Your task to perform on an android device: Search for vegetarian restaurants on Maps Image 0: 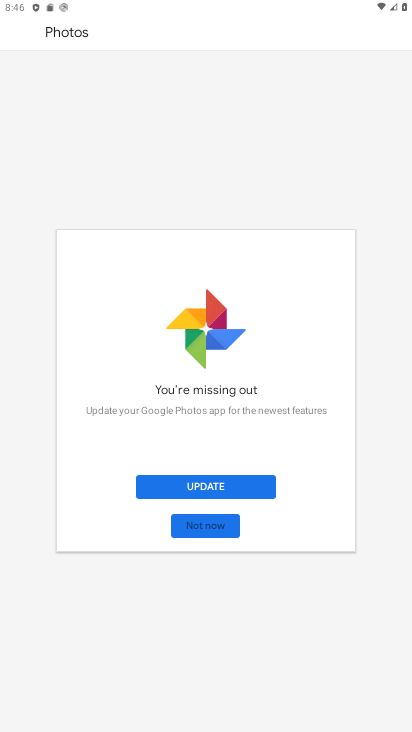
Step 0: press home button
Your task to perform on an android device: Search for vegetarian restaurants on Maps Image 1: 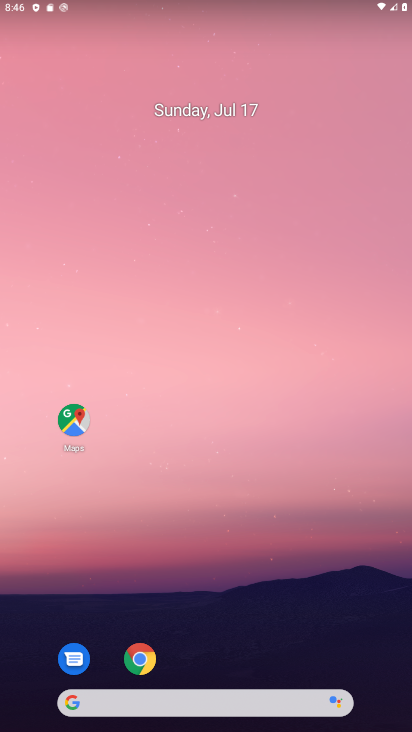
Step 1: click (72, 422)
Your task to perform on an android device: Search for vegetarian restaurants on Maps Image 2: 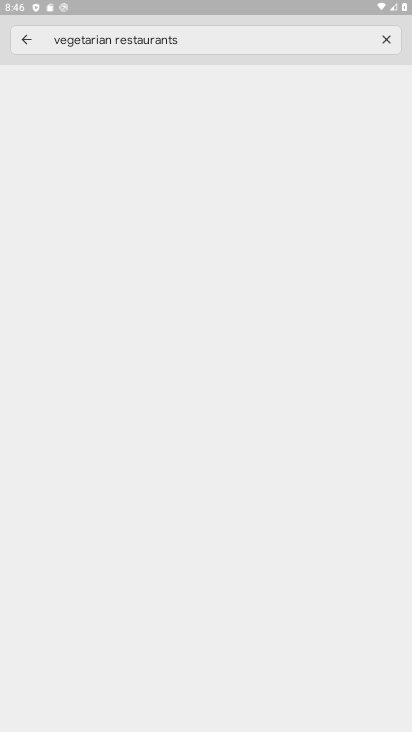
Step 2: click (390, 38)
Your task to perform on an android device: Search for vegetarian restaurants on Maps Image 3: 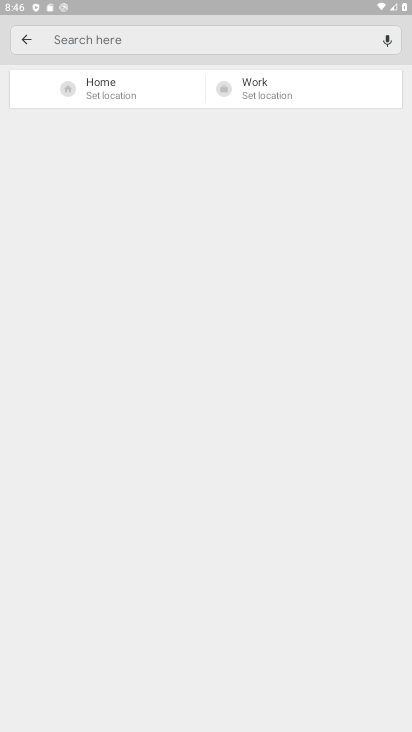
Step 3: click (93, 84)
Your task to perform on an android device: Search for vegetarian restaurants on Maps Image 4: 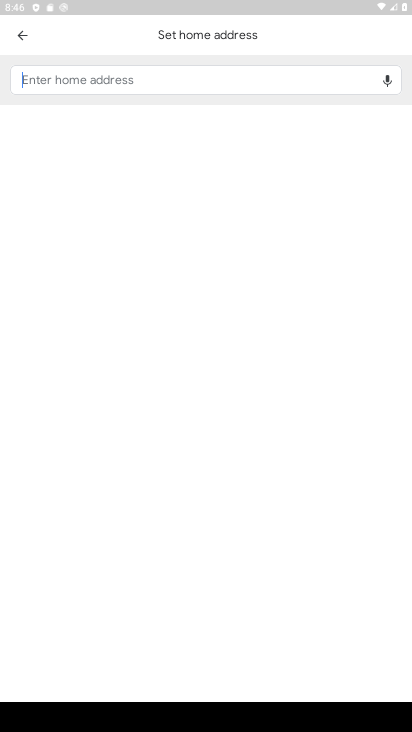
Step 4: click (16, 36)
Your task to perform on an android device: Search for vegetarian restaurants on Maps Image 5: 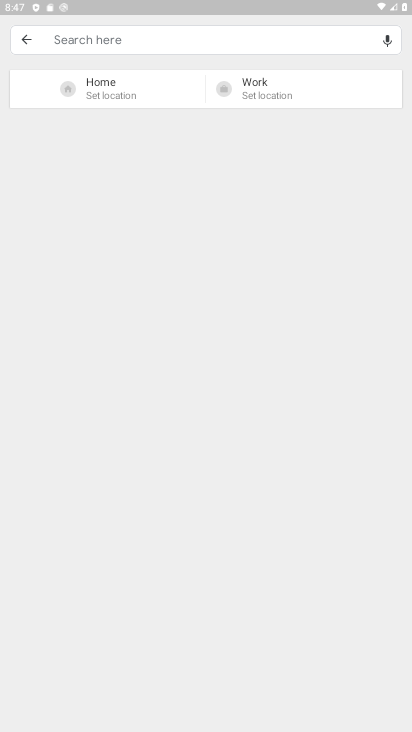
Step 5: type "v"
Your task to perform on an android device: Search for vegetarian restaurants on Maps Image 6: 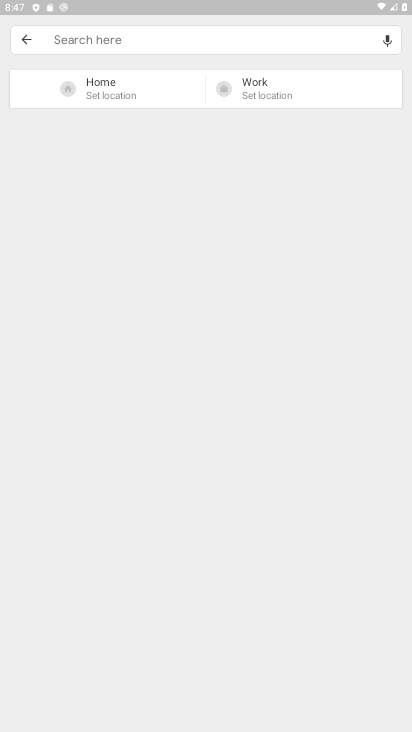
Step 6: click (262, 40)
Your task to perform on an android device: Search for vegetarian restaurants on Maps Image 7: 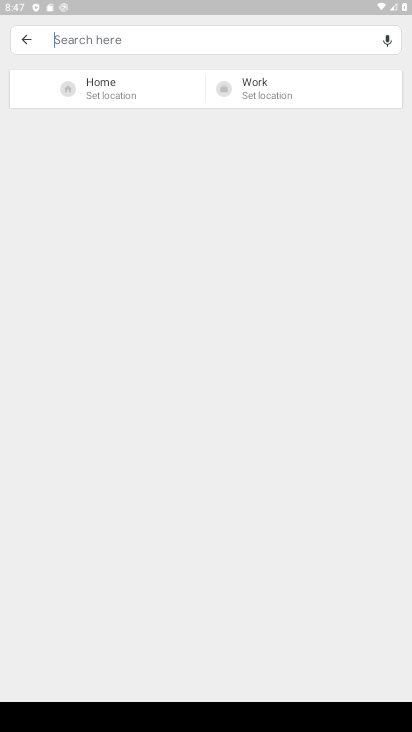
Step 7: type "vegetarian restaurants"
Your task to perform on an android device: Search for vegetarian restaurants on Maps Image 8: 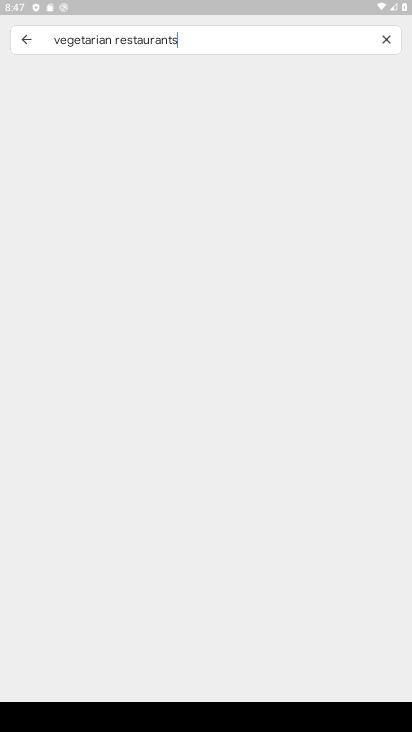
Step 8: type ""
Your task to perform on an android device: Search for vegetarian restaurants on Maps Image 9: 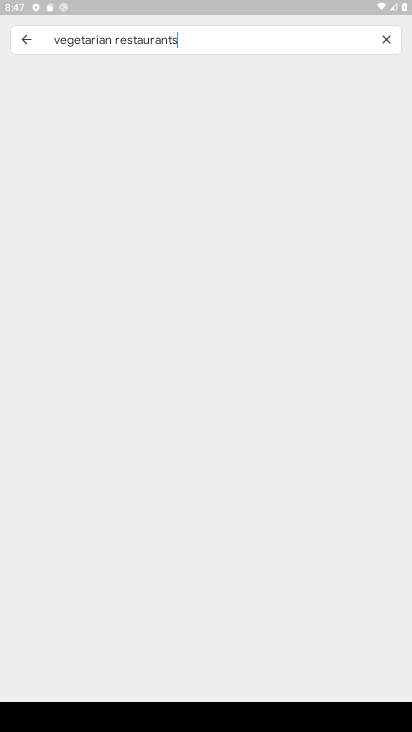
Step 9: task complete